Your task to perform on an android device: set the timer Image 0: 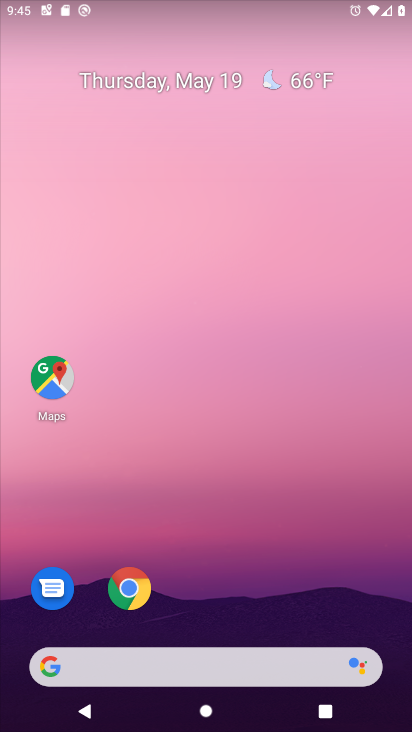
Step 0: drag from (371, 618) to (358, 252)
Your task to perform on an android device: set the timer Image 1: 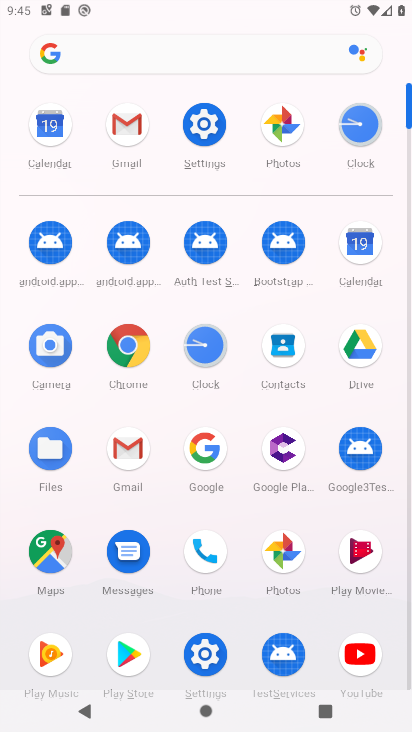
Step 1: click (217, 356)
Your task to perform on an android device: set the timer Image 2: 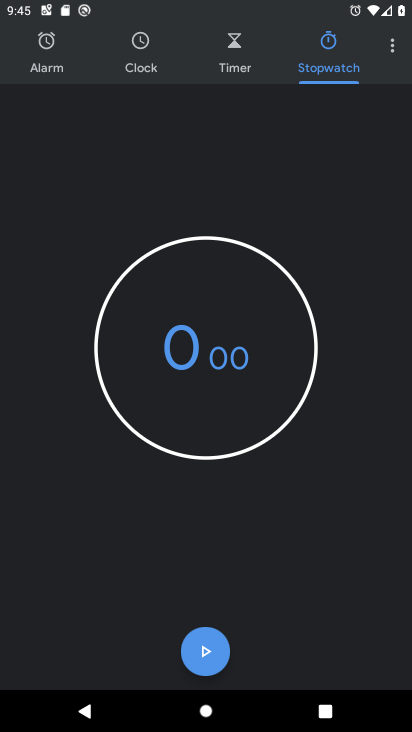
Step 2: click (238, 71)
Your task to perform on an android device: set the timer Image 3: 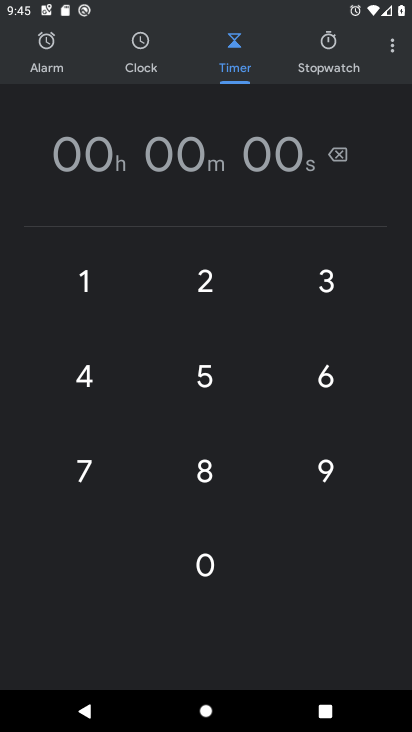
Step 3: click (214, 392)
Your task to perform on an android device: set the timer Image 4: 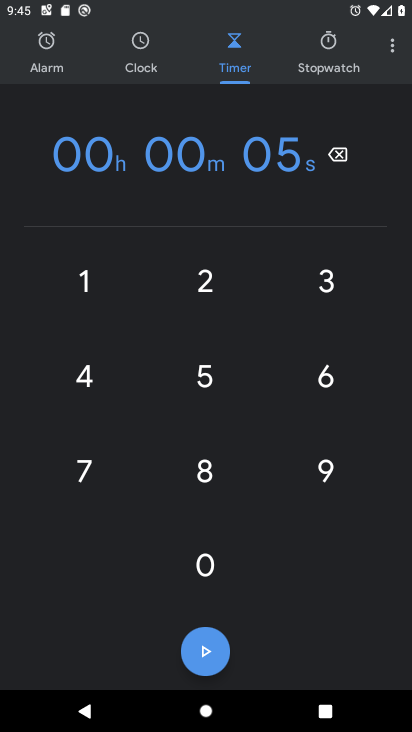
Step 4: task complete